Your task to perform on an android device: allow notifications from all sites in the chrome app Image 0: 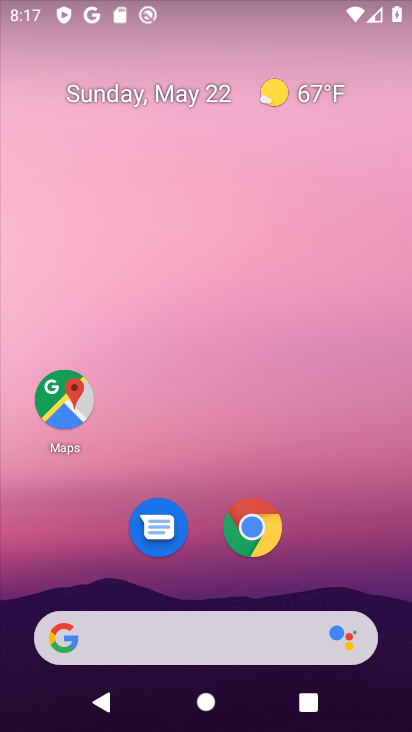
Step 0: click (250, 520)
Your task to perform on an android device: allow notifications from all sites in the chrome app Image 1: 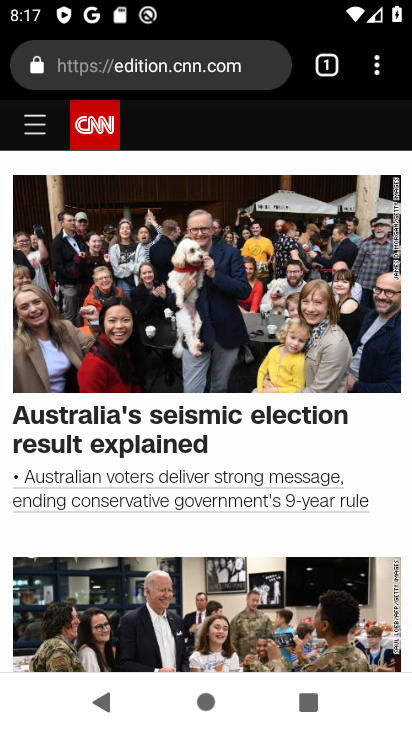
Step 1: press home button
Your task to perform on an android device: allow notifications from all sites in the chrome app Image 2: 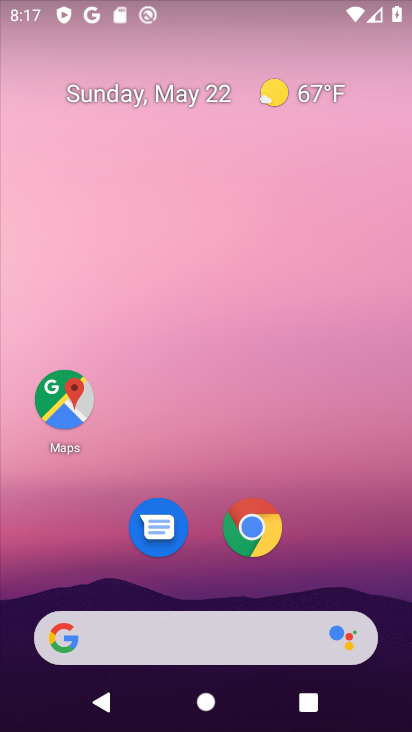
Step 2: click (250, 518)
Your task to perform on an android device: allow notifications from all sites in the chrome app Image 3: 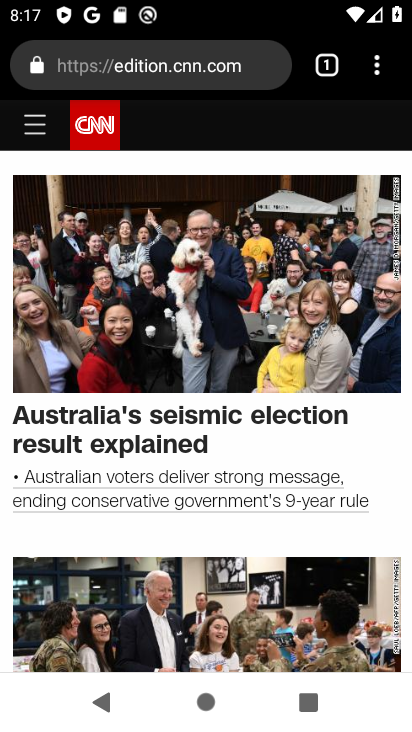
Step 3: click (381, 61)
Your task to perform on an android device: allow notifications from all sites in the chrome app Image 4: 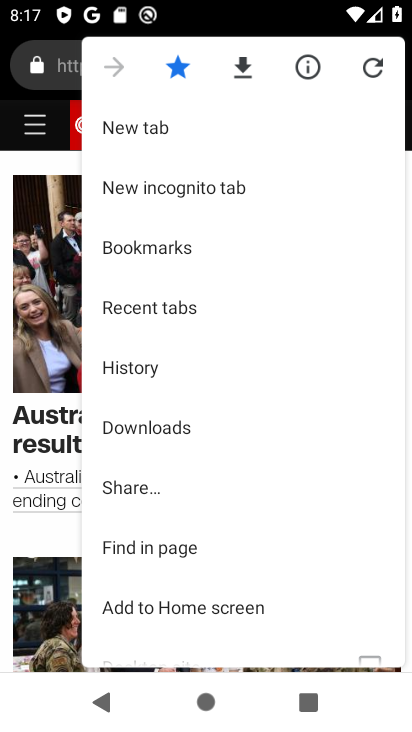
Step 4: drag from (249, 595) to (263, 157)
Your task to perform on an android device: allow notifications from all sites in the chrome app Image 5: 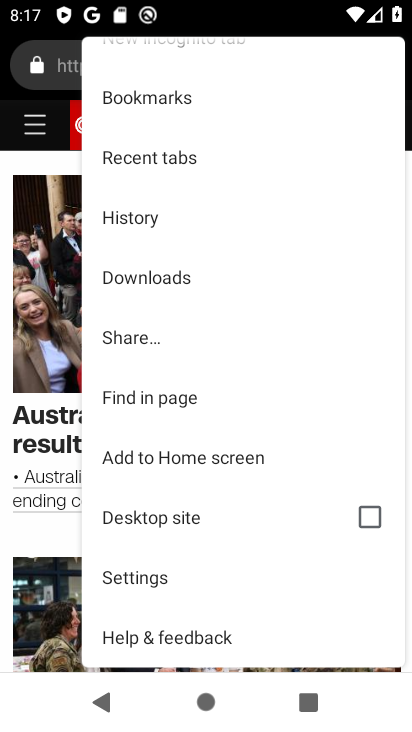
Step 5: click (176, 571)
Your task to perform on an android device: allow notifications from all sites in the chrome app Image 6: 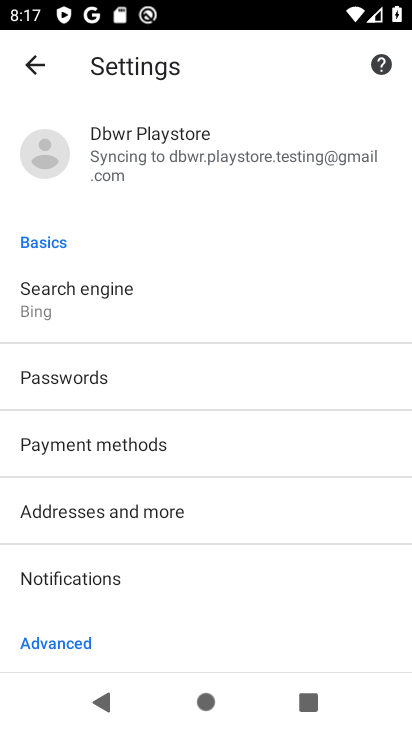
Step 6: drag from (232, 613) to (265, 57)
Your task to perform on an android device: allow notifications from all sites in the chrome app Image 7: 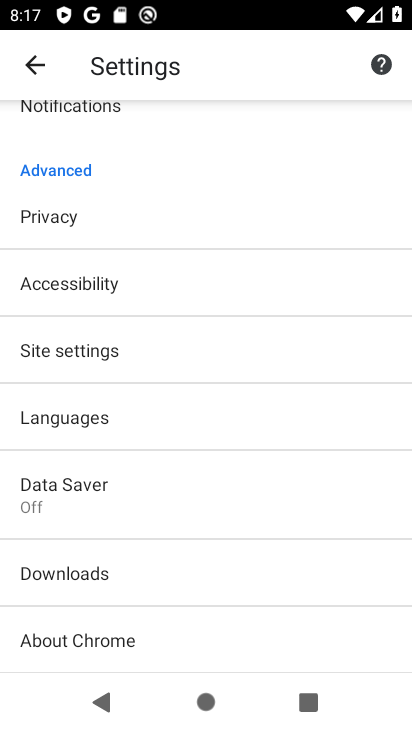
Step 7: click (128, 343)
Your task to perform on an android device: allow notifications from all sites in the chrome app Image 8: 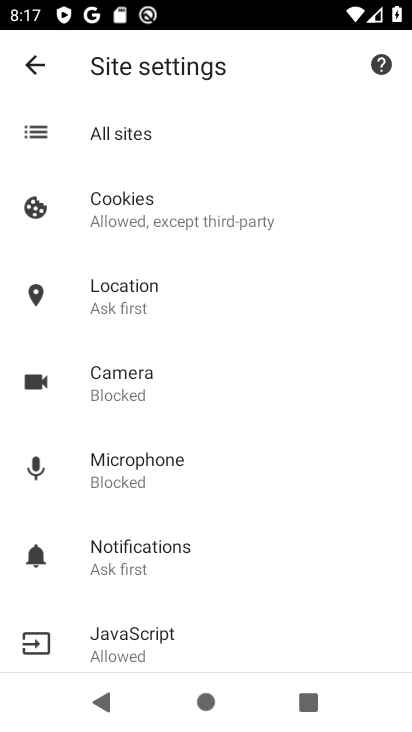
Step 8: click (196, 624)
Your task to perform on an android device: allow notifications from all sites in the chrome app Image 9: 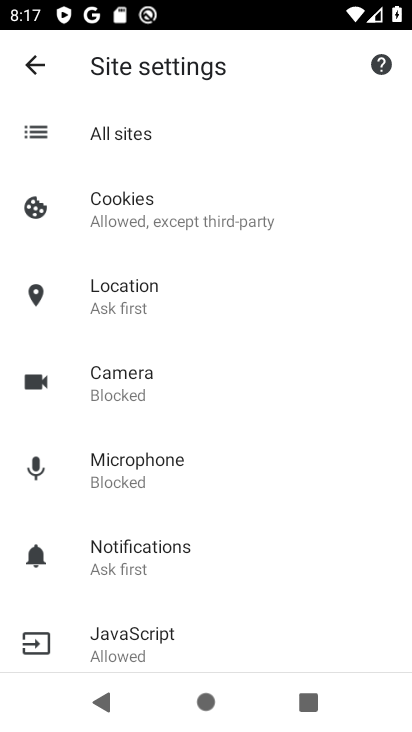
Step 9: click (80, 127)
Your task to perform on an android device: allow notifications from all sites in the chrome app Image 10: 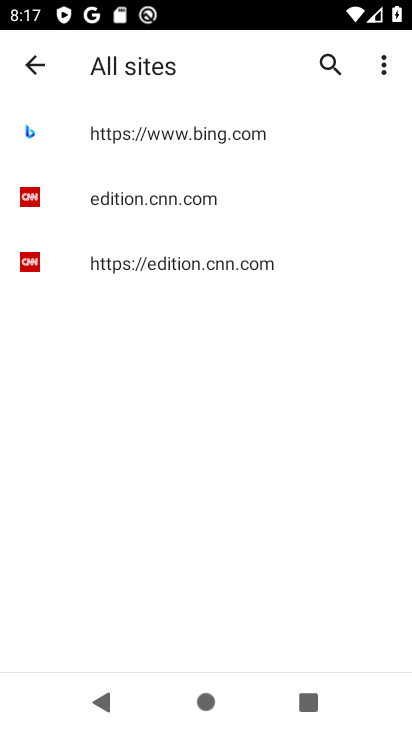
Step 10: click (71, 131)
Your task to perform on an android device: allow notifications from all sites in the chrome app Image 11: 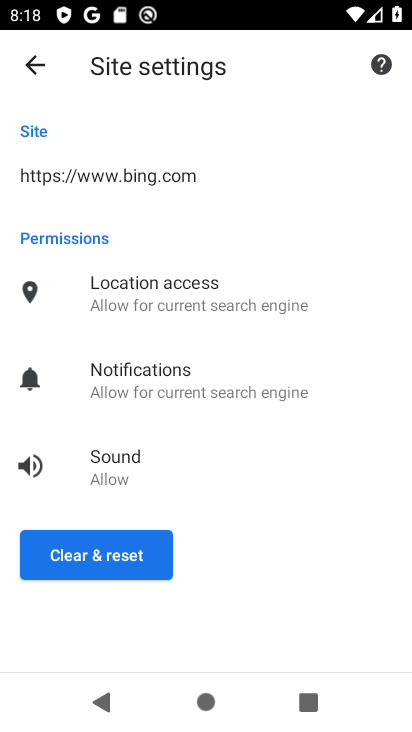
Step 11: click (38, 74)
Your task to perform on an android device: allow notifications from all sites in the chrome app Image 12: 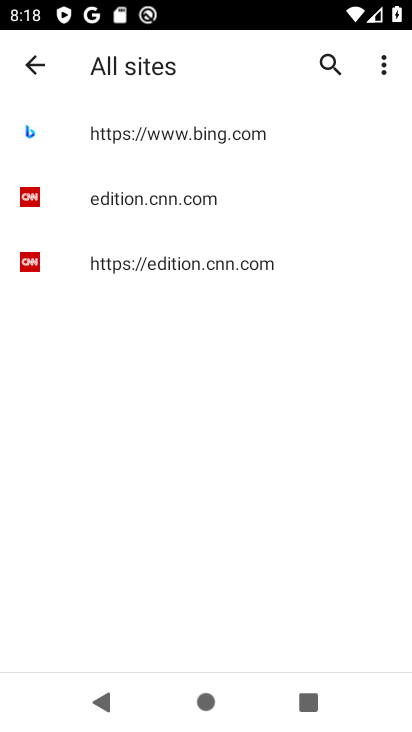
Step 12: click (65, 198)
Your task to perform on an android device: allow notifications from all sites in the chrome app Image 13: 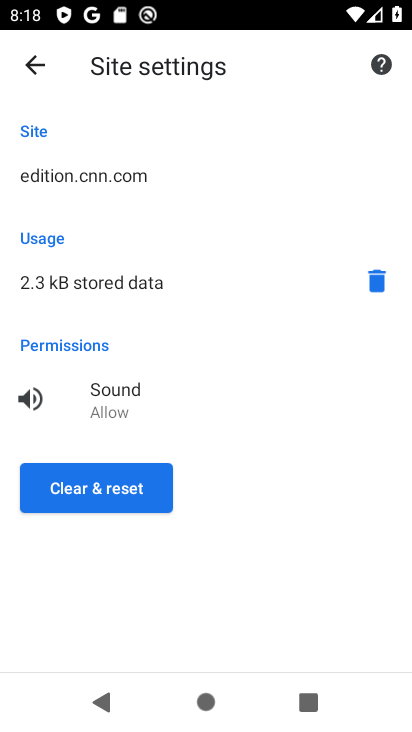
Step 13: click (39, 65)
Your task to perform on an android device: allow notifications from all sites in the chrome app Image 14: 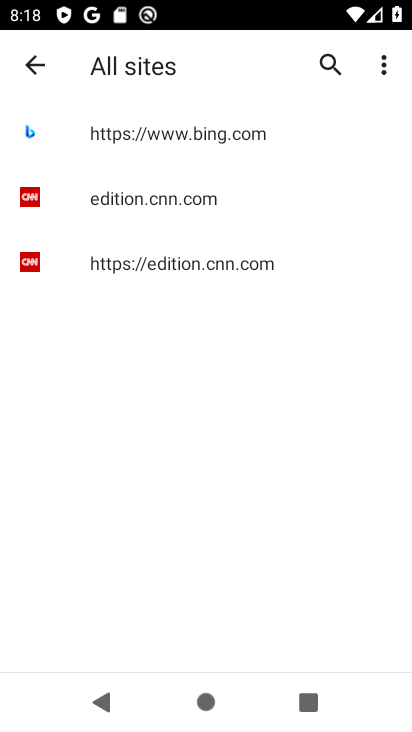
Step 14: click (71, 260)
Your task to perform on an android device: allow notifications from all sites in the chrome app Image 15: 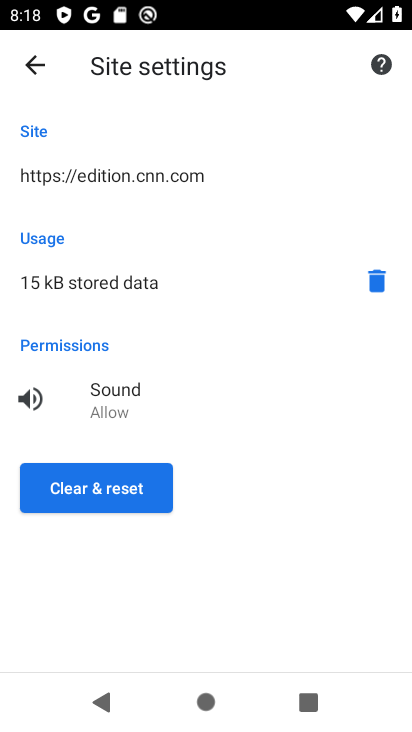
Step 15: task complete